Your task to perform on an android device: turn off priority inbox in the gmail app Image 0: 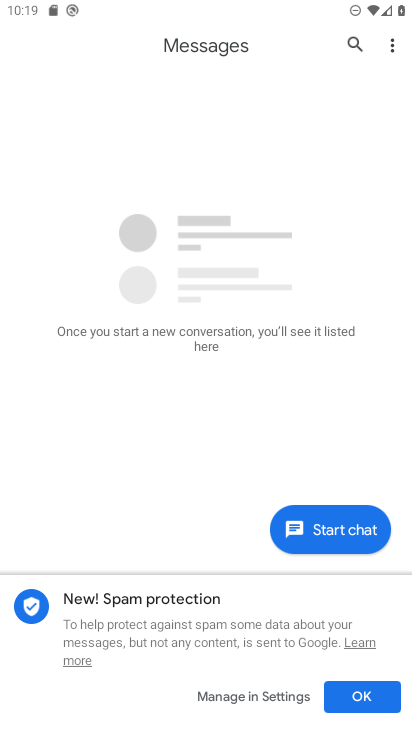
Step 0: press home button
Your task to perform on an android device: turn off priority inbox in the gmail app Image 1: 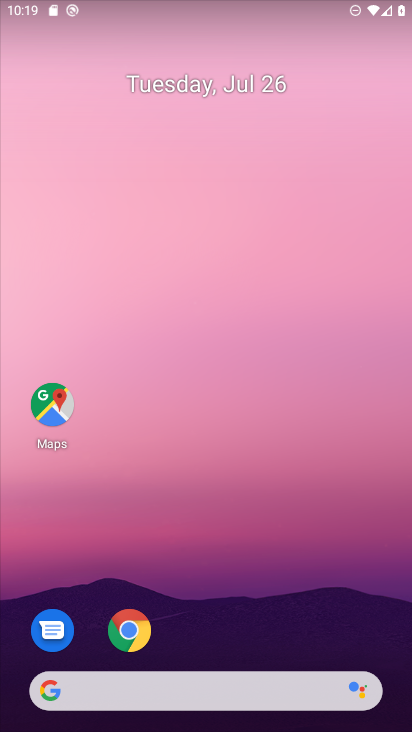
Step 1: drag from (398, 662) to (345, 217)
Your task to perform on an android device: turn off priority inbox in the gmail app Image 2: 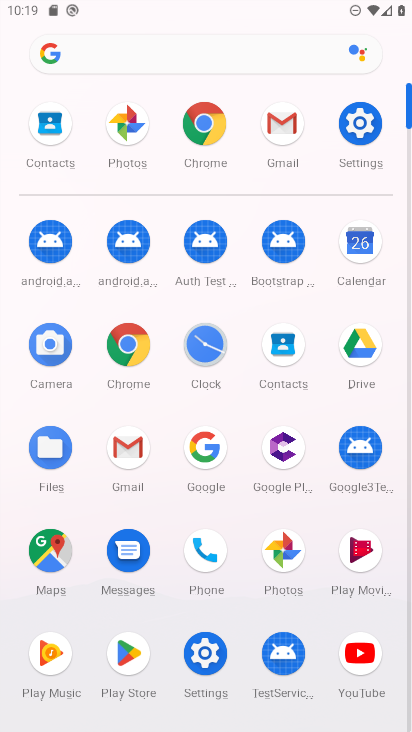
Step 2: click (126, 448)
Your task to perform on an android device: turn off priority inbox in the gmail app Image 3: 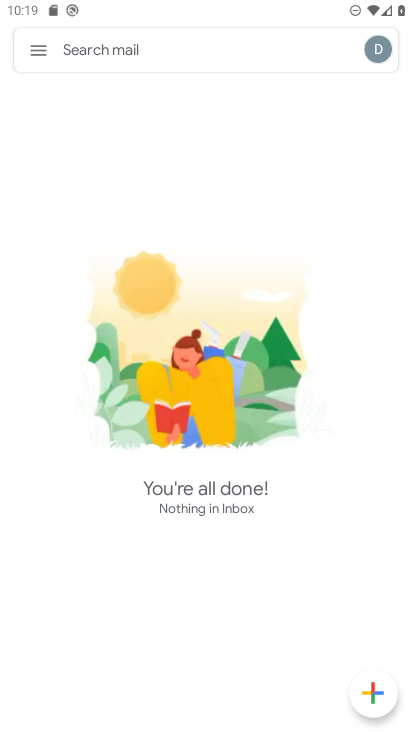
Step 3: click (39, 51)
Your task to perform on an android device: turn off priority inbox in the gmail app Image 4: 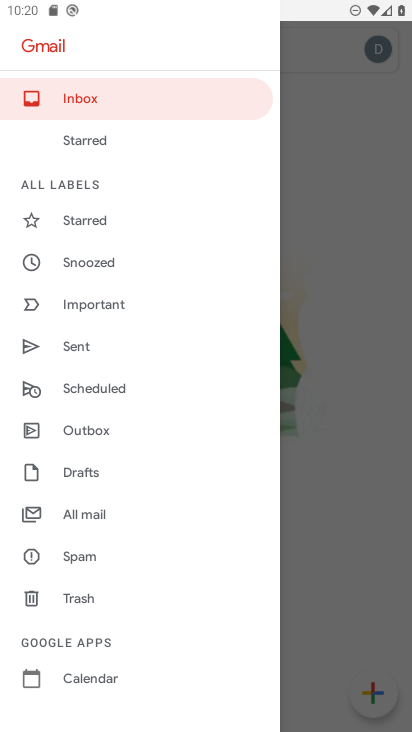
Step 4: drag from (150, 626) to (158, 389)
Your task to perform on an android device: turn off priority inbox in the gmail app Image 5: 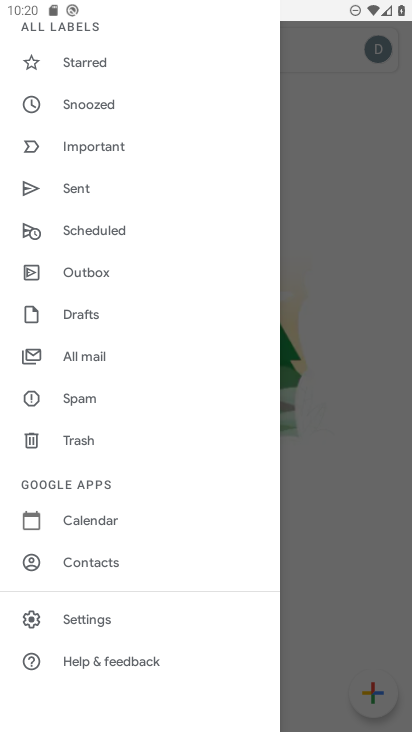
Step 5: click (76, 616)
Your task to perform on an android device: turn off priority inbox in the gmail app Image 6: 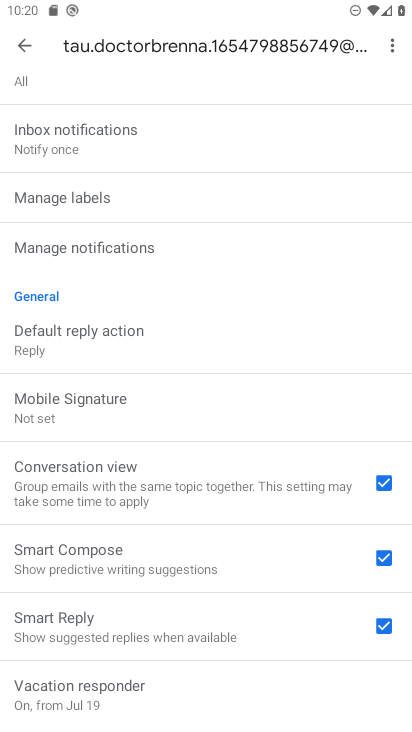
Step 6: drag from (184, 194) to (195, 403)
Your task to perform on an android device: turn off priority inbox in the gmail app Image 7: 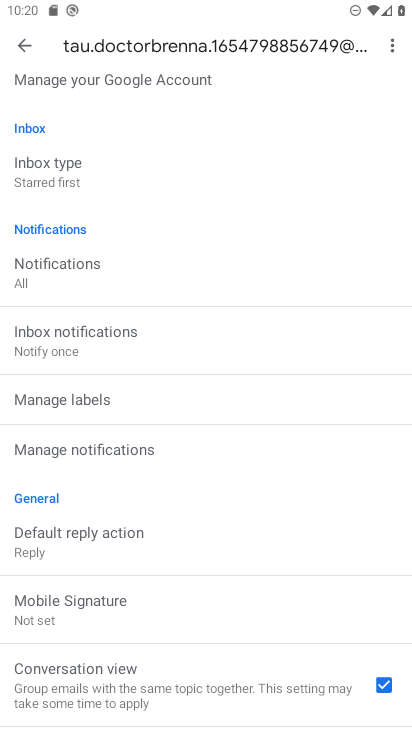
Step 7: click (40, 167)
Your task to perform on an android device: turn off priority inbox in the gmail app Image 8: 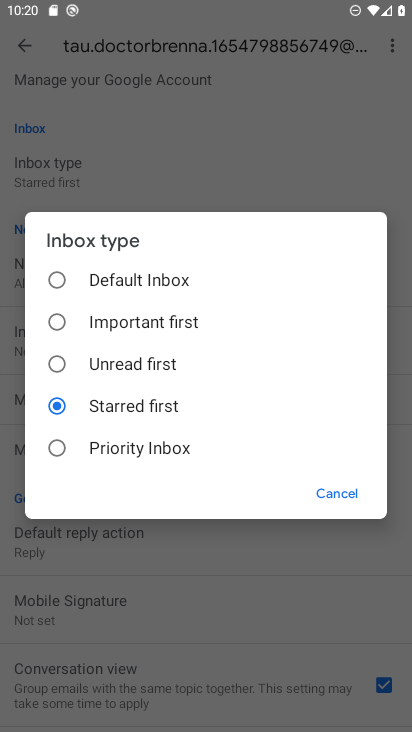
Step 8: task complete